Your task to perform on an android device: Go to network settings Image 0: 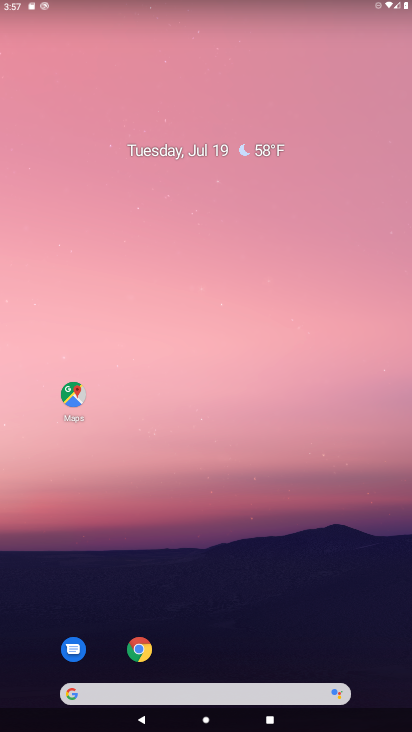
Step 0: drag from (235, 727) to (218, 79)
Your task to perform on an android device: Go to network settings Image 1: 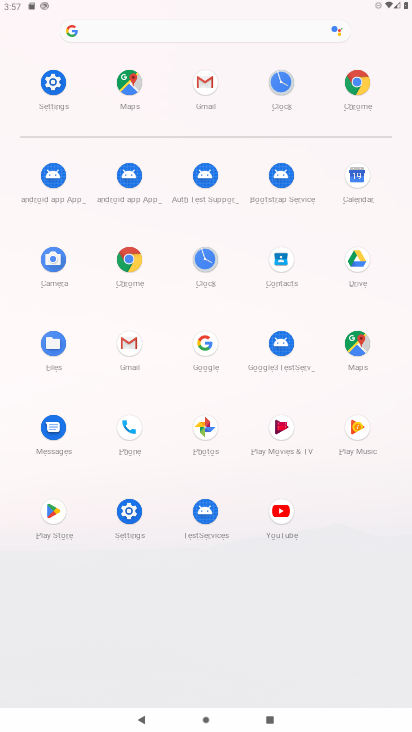
Step 1: click (47, 83)
Your task to perform on an android device: Go to network settings Image 2: 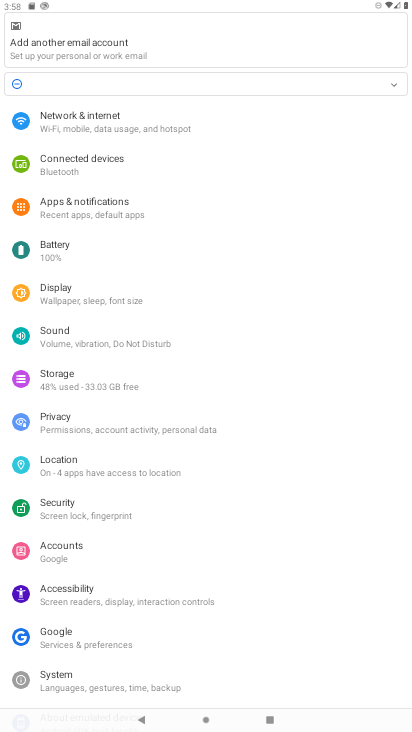
Step 2: click (53, 118)
Your task to perform on an android device: Go to network settings Image 3: 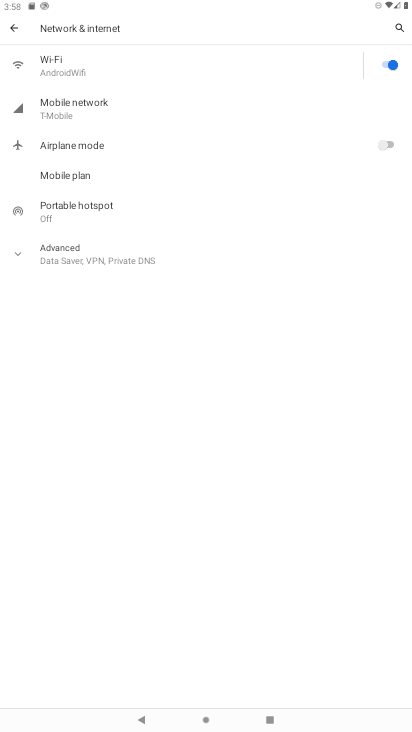
Step 3: click (64, 102)
Your task to perform on an android device: Go to network settings Image 4: 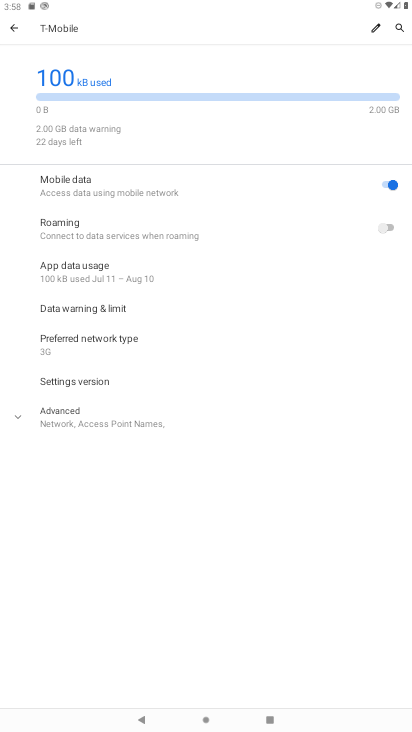
Step 4: task complete